Your task to perform on an android device: Go to sound settings Image 0: 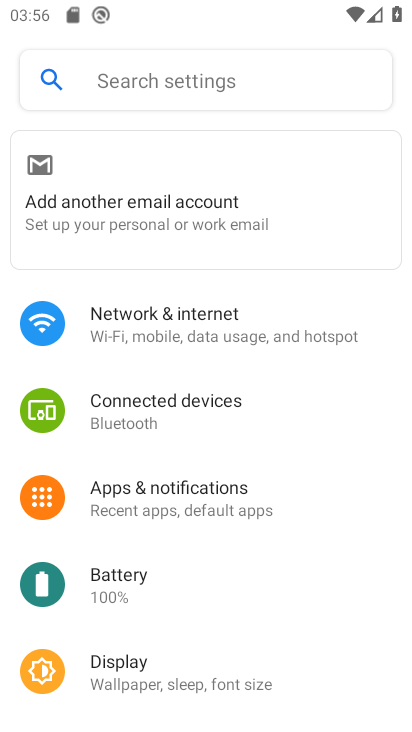
Step 0: drag from (345, 557) to (346, 435)
Your task to perform on an android device: Go to sound settings Image 1: 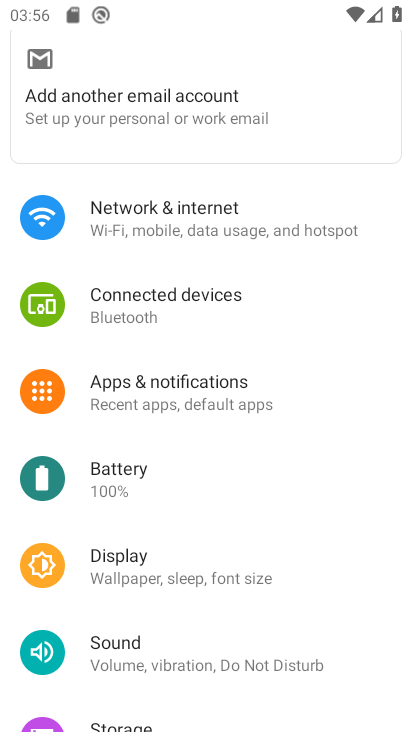
Step 1: drag from (359, 606) to (369, 455)
Your task to perform on an android device: Go to sound settings Image 2: 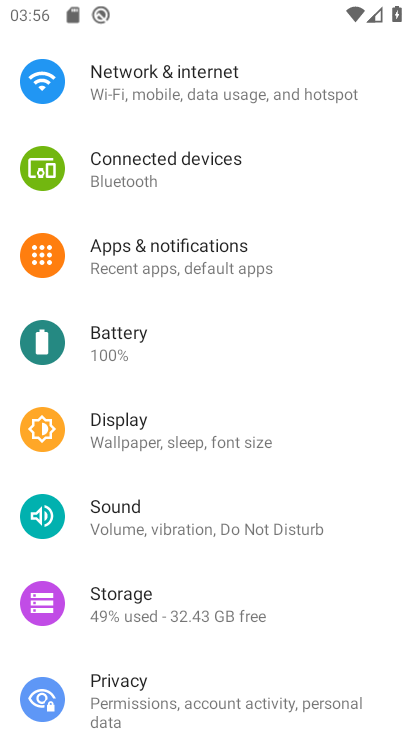
Step 2: drag from (344, 603) to (351, 485)
Your task to perform on an android device: Go to sound settings Image 3: 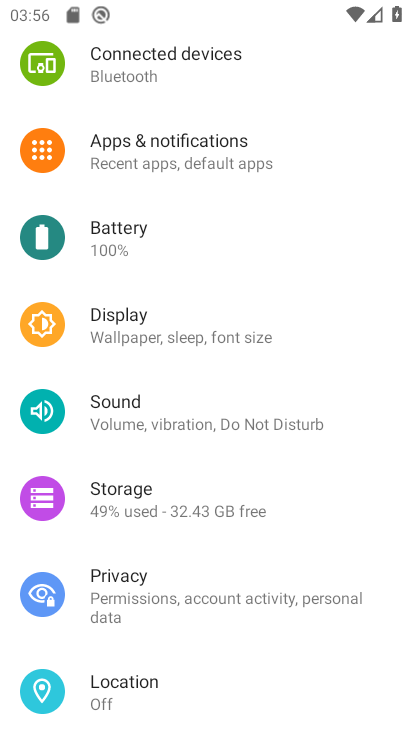
Step 3: drag from (356, 656) to (369, 512)
Your task to perform on an android device: Go to sound settings Image 4: 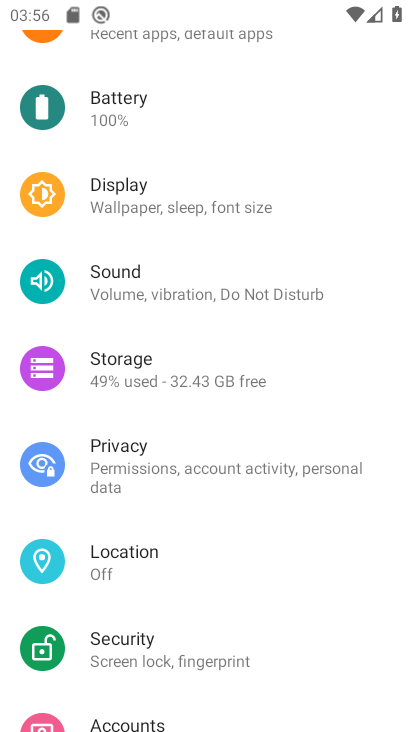
Step 4: drag from (365, 344) to (353, 597)
Your task to perform on an android device: Go to sound settings Image 5: 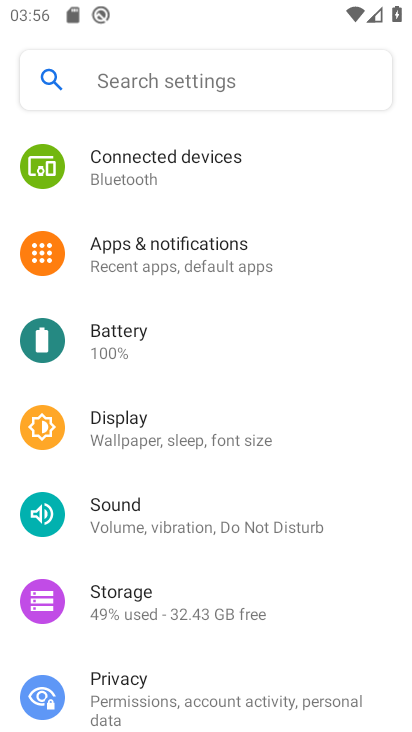
Step 5: click (293, 522)
Your task to perform on an android device: Go to sound settings Image 6: 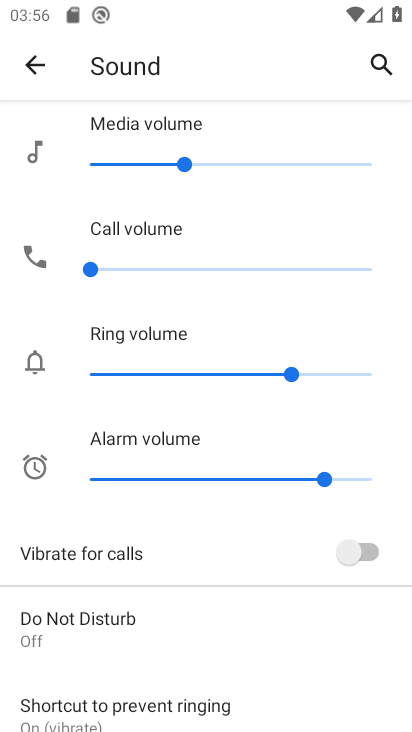
Step 6: task complete